Your task to perform on an android device: Show me the top rated dinnerware on Crate & Barrel Image 0: 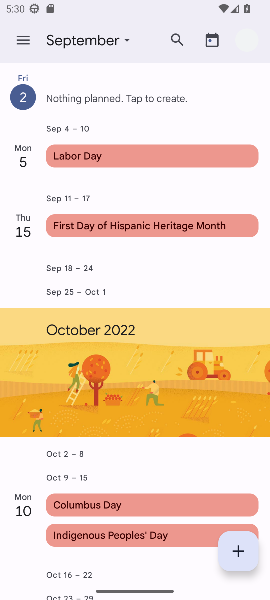
Step 0: press home button
Your task to perform on an android device: Show me the top rated dinnerware on Crate & Barrel Image 1: 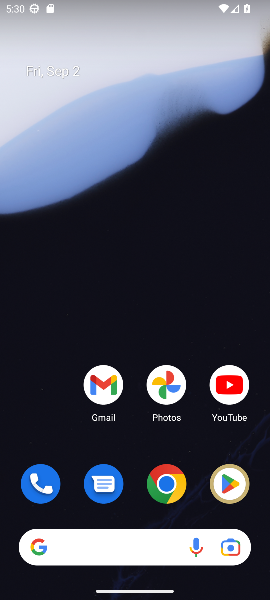
Step 1: click (159, 484)
Your task to perform on an android device: Show me the top rated dinnerware on Crate & Barrel Image 2: 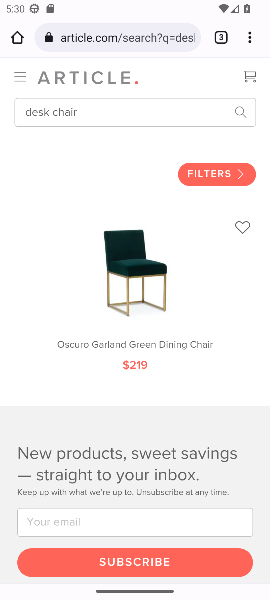
Step 2: click (136, 40)
Your task to perform on an android device: Show me the top rated dinnerware on Crate & Barrel Image 3: 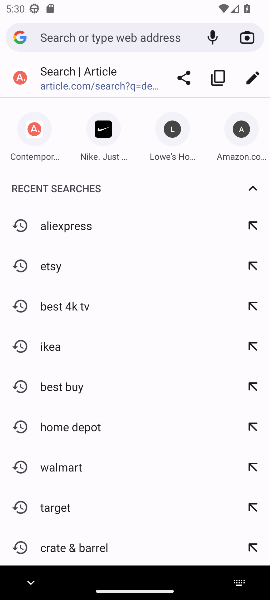
Step 3: type " Crate & Barrel"
Your task to perform on an android device: Show me the top rated dinnerware on Crate & Barrel Image 4: 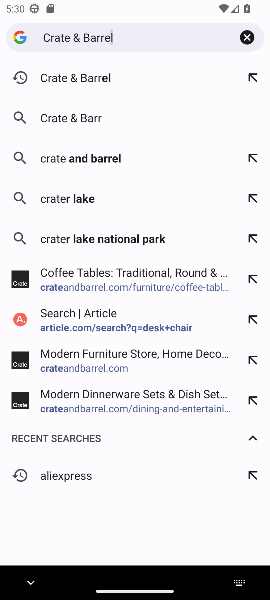
Step 4: press enter
Your task to perform on an android device: Show me the top rated dinnerware on Crate & Barrel Image 5: 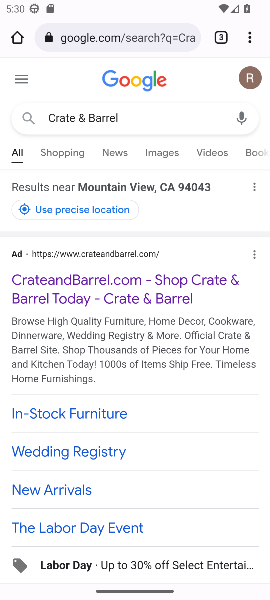
Step 5: drag from (133, 446) to (166, 223)
Your task to perform on an android device: Show me the top rated dinnerware on Crate & Barrel Image 6: 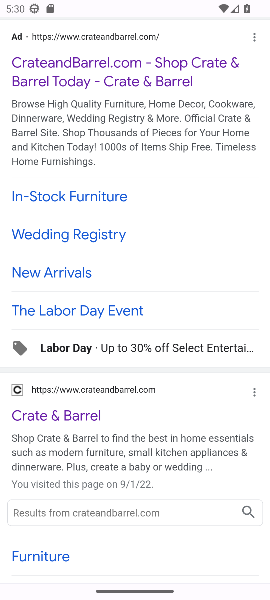
Step 6: click (81, 418)
Your task to perform on an android device: Show me the top rated dinnerware on Crate & Barrel Image 7: 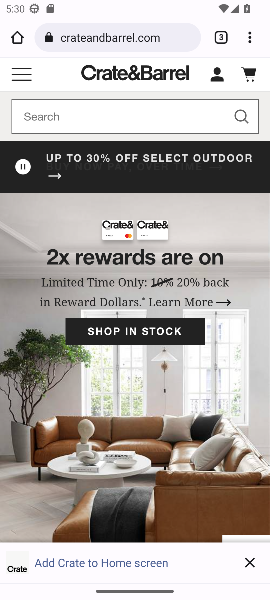
Step 7: click (131, 116)
Your task to perform on an android device: Show me the top rated dinnerware on Crate & Barrel Image 8: 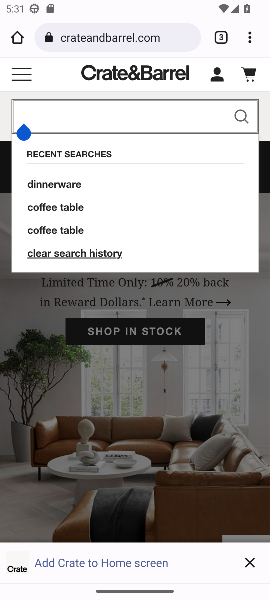
Step 8: click (54, 185)
Your task to perform on an android device: Show me the top rated dinnerware on Crate & Barrel Image 9: 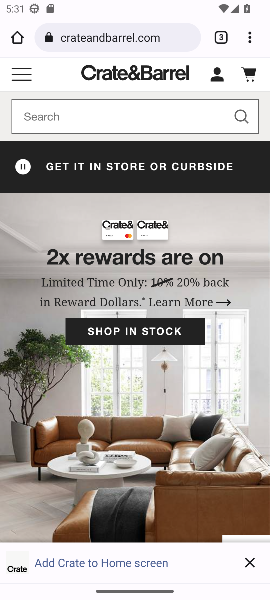
Step 9: click (70, 112)
Your task to perform on an android device: Show me the top rated dinnerware on Crate & Barrel Image 10: 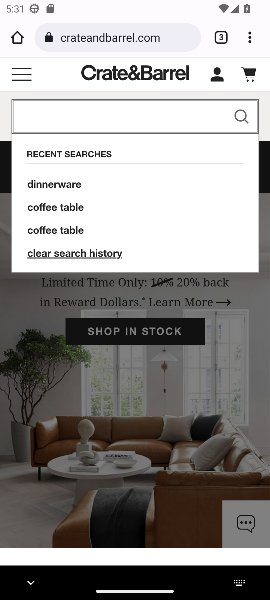
Step 10: press enter
Your task to perform on an android device: Show me the top rated dinnerware on Crate & Barrel Image 11: 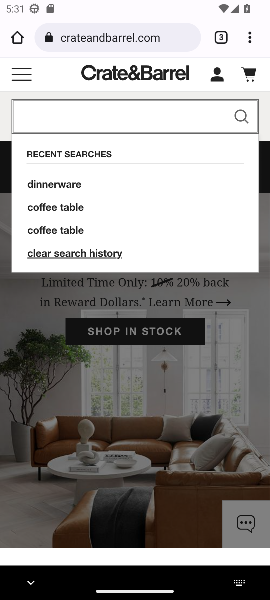
Step 11: type "dinnerware "
Your task to perform on an android device: Show me the top rated dinnerware on Crate & Barrel Image 12: 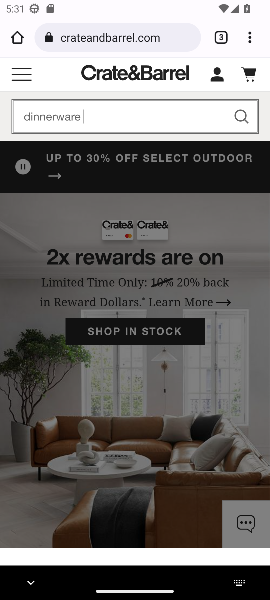
Step 12: click (240, 115)
Your task to perform on an android device: Show me the top rated dinnerware on Crate & Barrel Image 13: 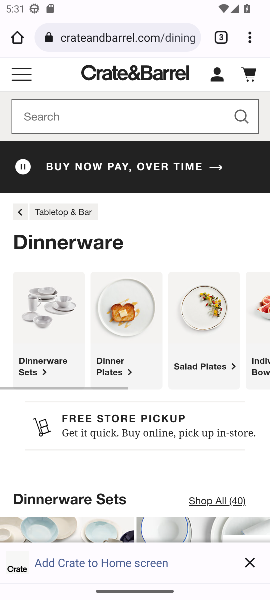
Step 13: task complete